Your task to perform on an android device: Show me popular games on the Play Store Image 0: 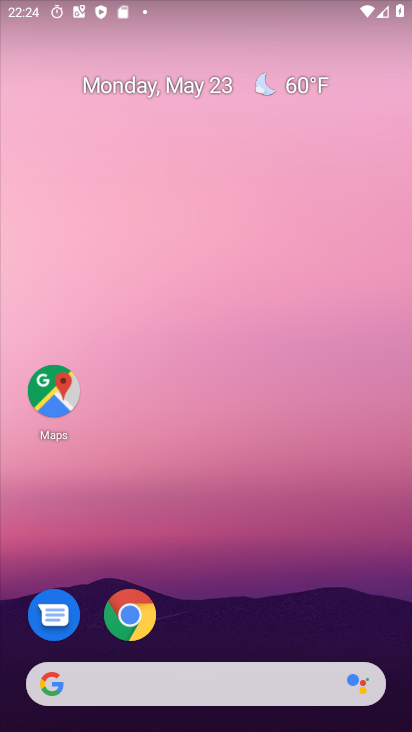
Step 0: drag from (185, 584) to (209, 38)
Your task to perform on an android device: Show me popular games on the Play Store Image 1: 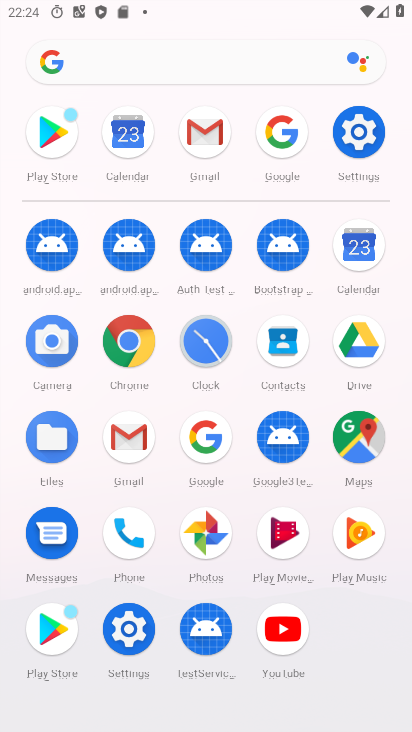
Step 1: click (67, 623)
Your task to perform on an android device: Show me popular games on the Play Store Image 2: 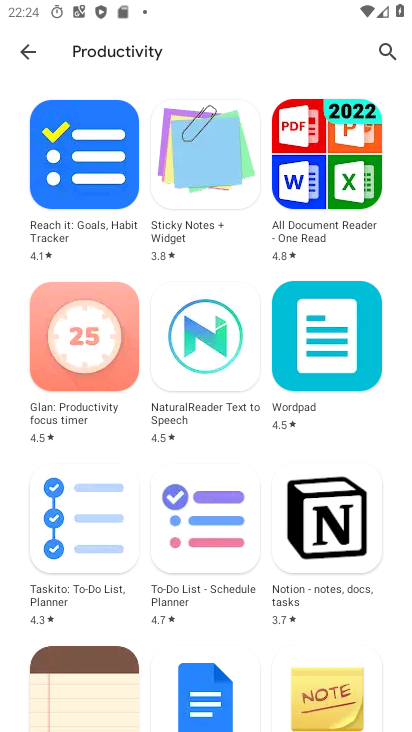
Step 2: press back button
Your task to perform on an android device: Show me popular games on the Play Store Image 3: 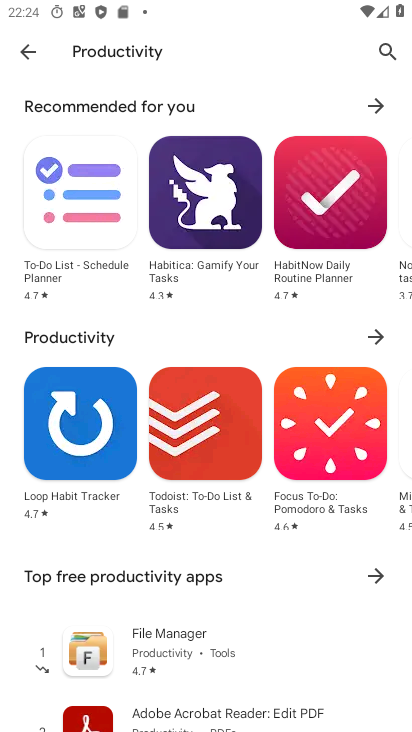
Step 3: press back button
Your task to perform on an android device: Show me popular games on the Play Store Image 4: 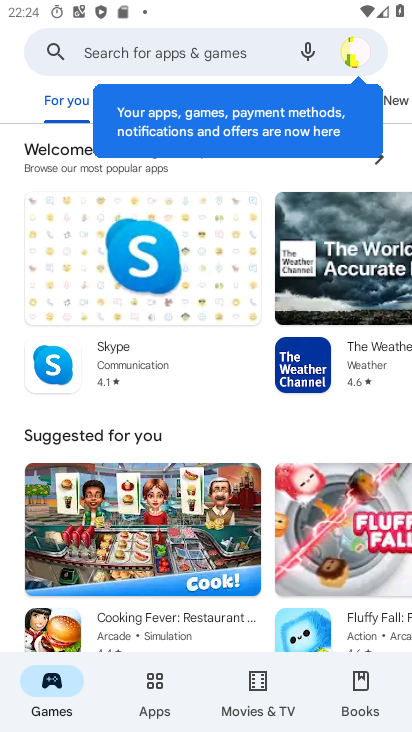
Step 4: drag from (262, 482) to (282, 99)
Your task to perform on an android device: Show me popular games on the Play Store Image 5: 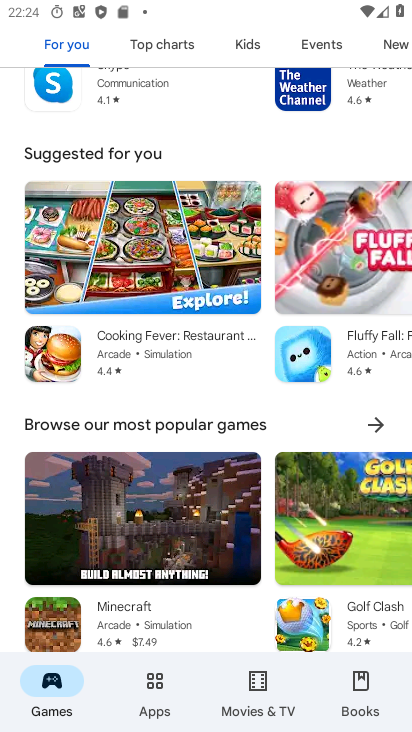
Step 5: click (296, 424)
Your task to perform on an android device: Show me popular games on the Play Store Image 6: 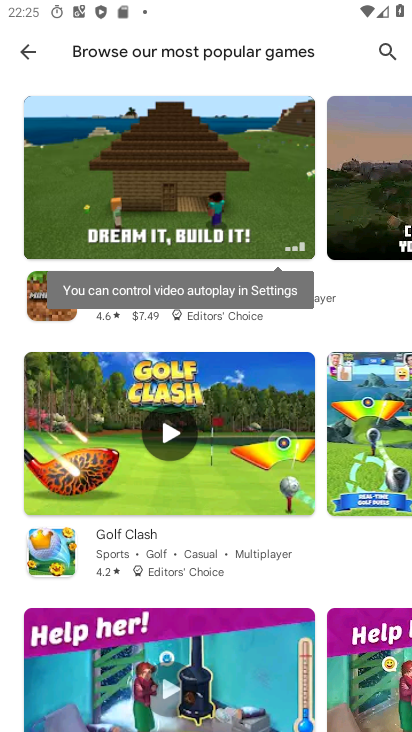
Step 6: task complete